Your task to perform on an android device: Go to Google Image 0: 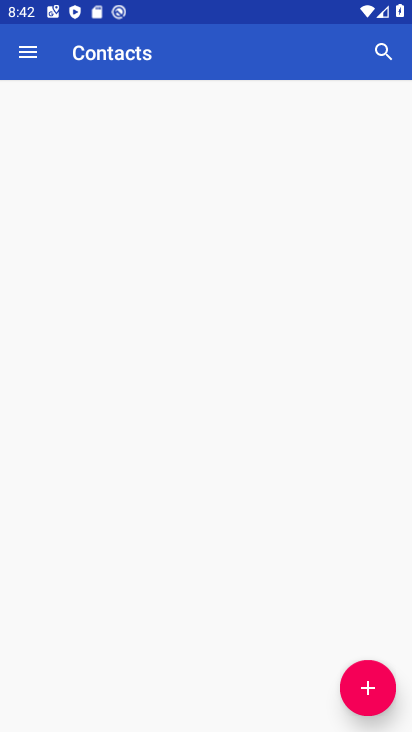
Step 0: press home button
Your task to perform on an android device: Go to Google Image 1: 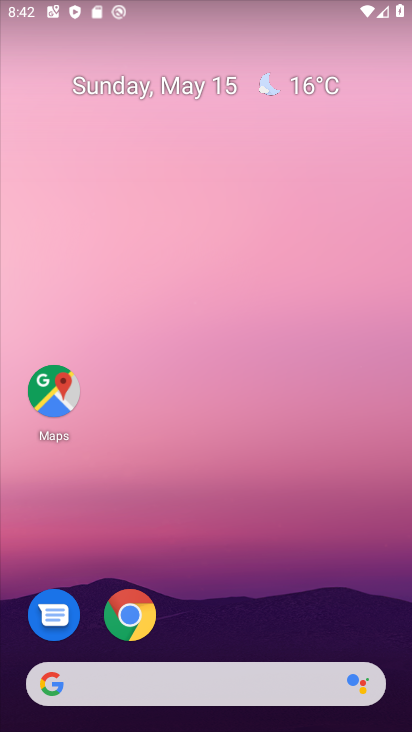
Step 1: drag from (254, 620) to (255, 1)
Your task to perform on an android device: Go to Google Image 2: 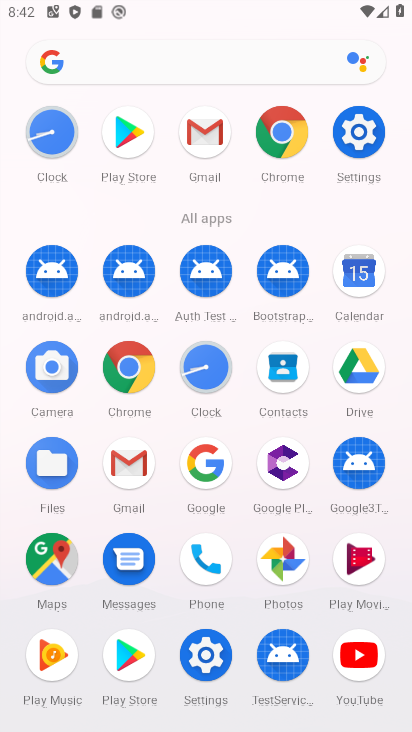
Step 2: click (204, 468)
Your task to perform on an android device: Go to Google Image 3: 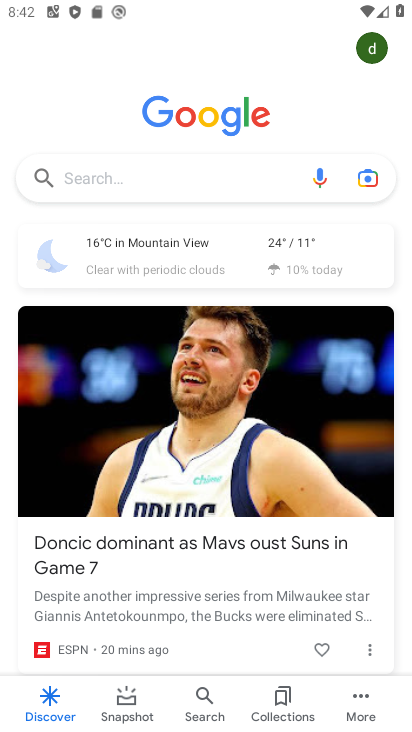
Step 3: task complete